Your task to perform on an android device: Open the Play Movies app and select the watchlist tab. Image 0: 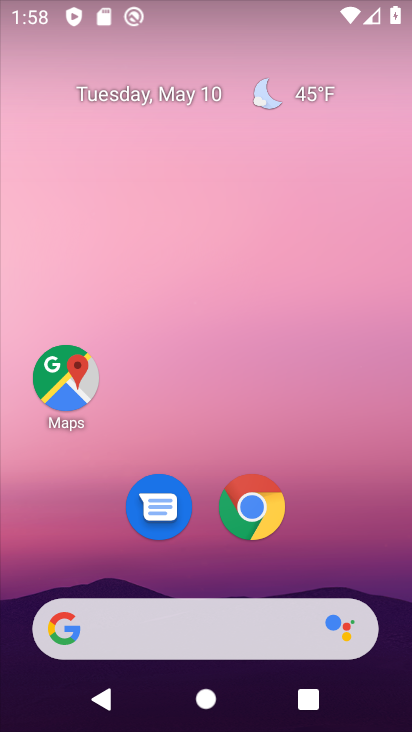
Step 0: drag from (320, 539) to (195, 181)
Your task to perform on an android device: Open the Play Movies app and select the watchlist tab. Image 1: 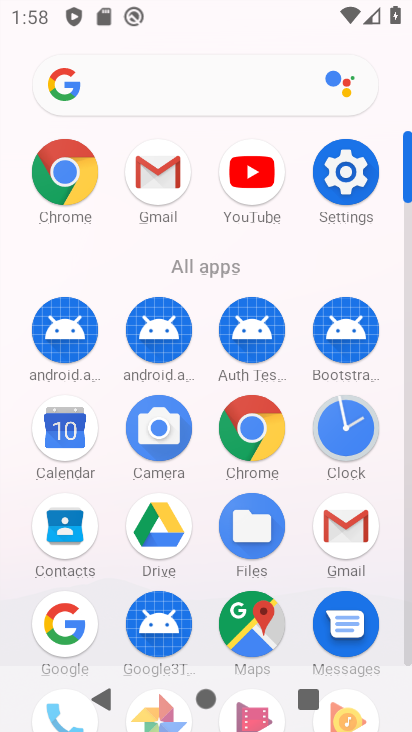
Step 1: drag from (302, 628) to (296, 405)
Your task to perform on an android device: Open the Play Movies app and select the watchlist tab. Image 2: 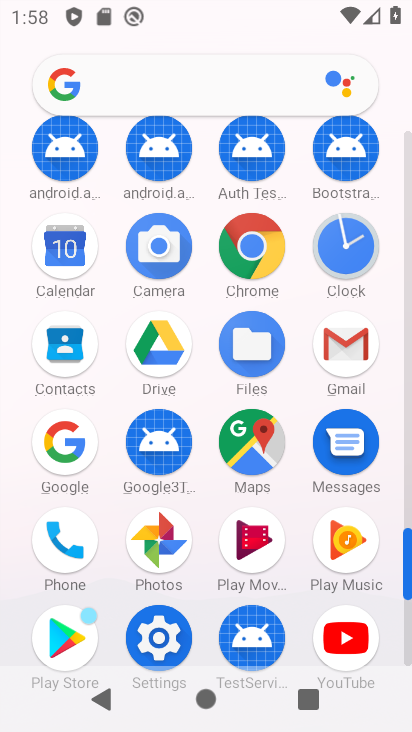
Step 2: click (244, 540)
Your task to perform on an android device: Open the Play Movies app and select the watchlist tab. Image 3: 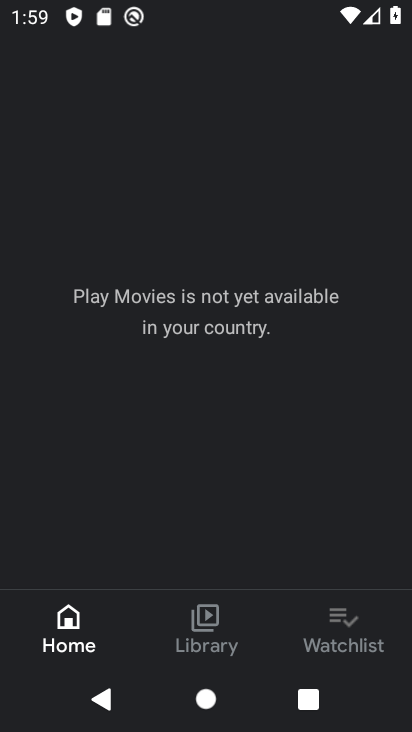
Step 3: click (319, 624)
Your task to perform on an android device: Open the Play Movies app and select the watchlist tab. Image 4: 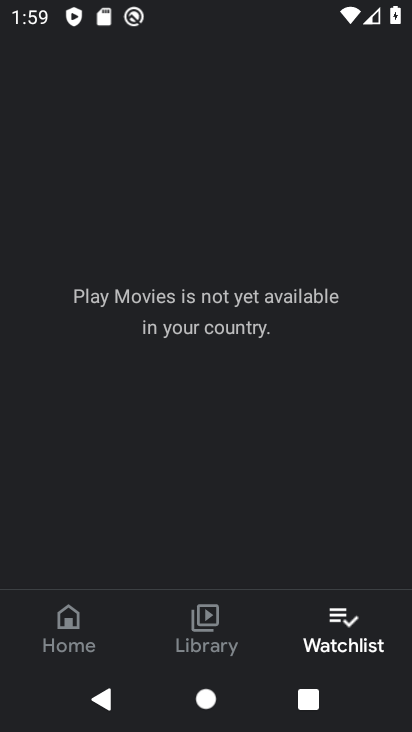
Step 4: task complete